Your task to perform on an android device: turn off data saver in the chrome app Image 0: 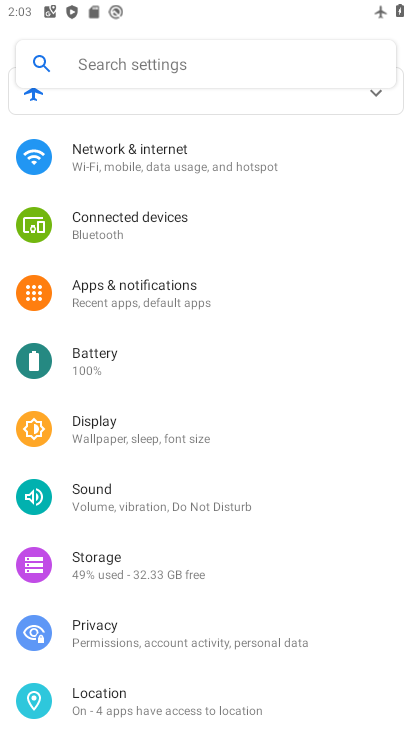
Step 0: press home button
Your task to perform on an android device: turn off data saver in the chrome app Image 1: 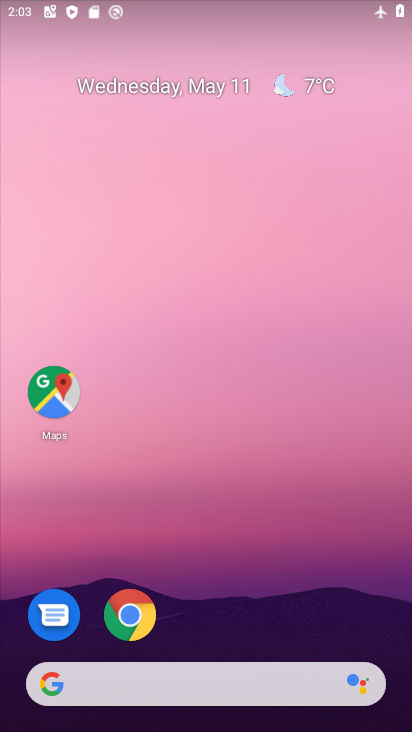
Step 1: click (126, 618)
Your task to perform on an android device: turn off data saver in the chrome app Image 2: 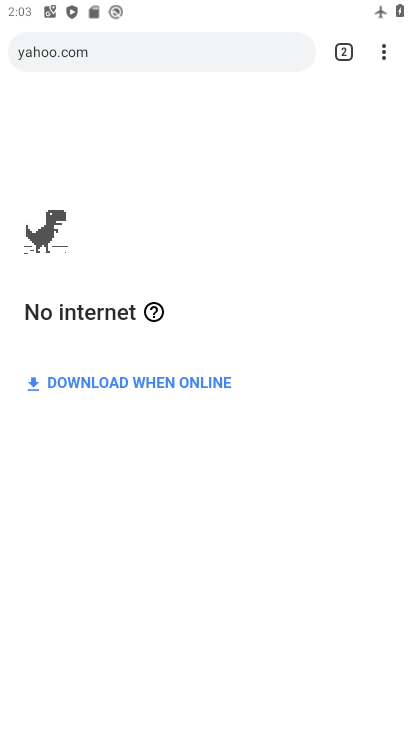
Step 2: drag from (392, 49) to (192, 580)
Your task to perform on an android device: turn off data saver in the chrome app Image 3: 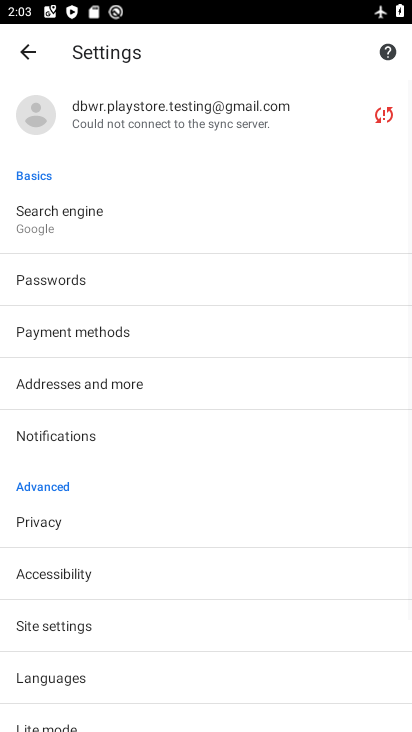
Step 3: drag from (128, 669) to (236, 362)
Your task to perform on an android device: turn off data saver in the chrome app Image 4: 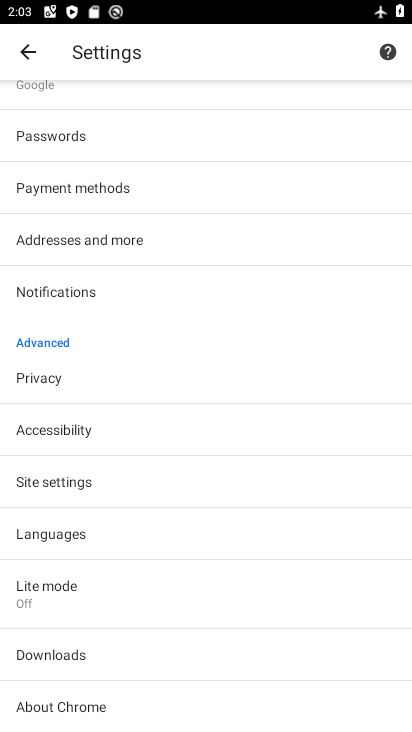
Step 4: click (65, 579)
Your task to perform on an android device: turn off data saver in the chrome app Image 5: 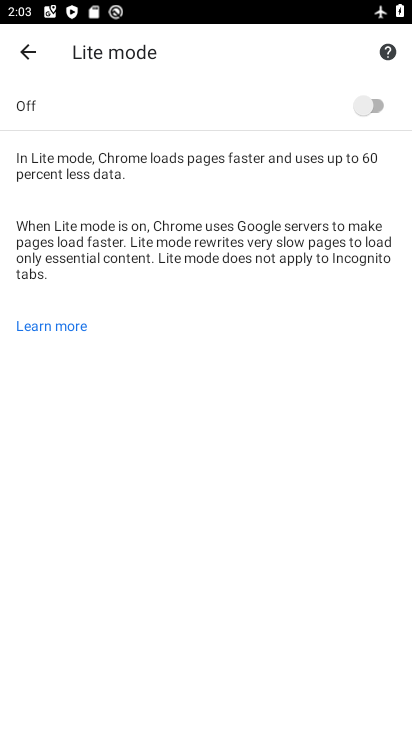
Step 5: task complete